Your task to perform on an android device: Go to notification settings Image 0: 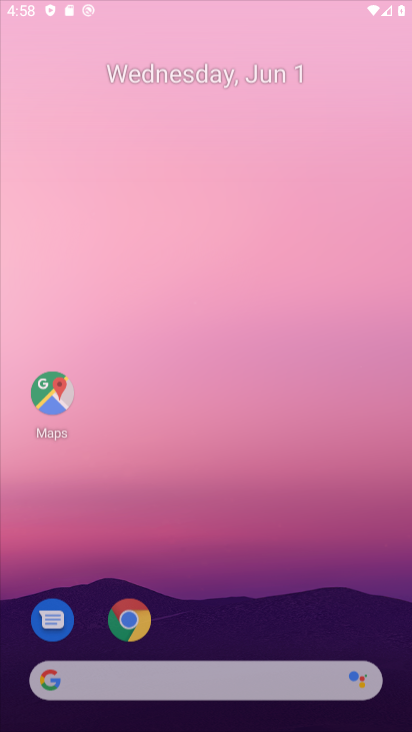
Step 0: drag from (212, 615) to (235, 217)
Your task to perform on an android device: Go to notification settings Image 1: 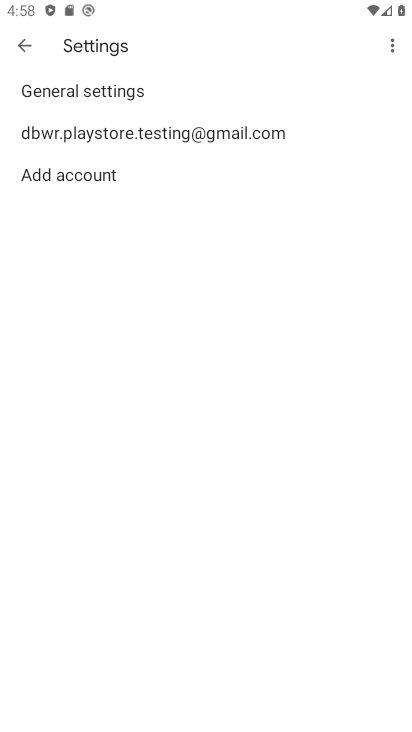
Step 1: press home button
Your task to perform on an android device: Go to notification settings Image 2: 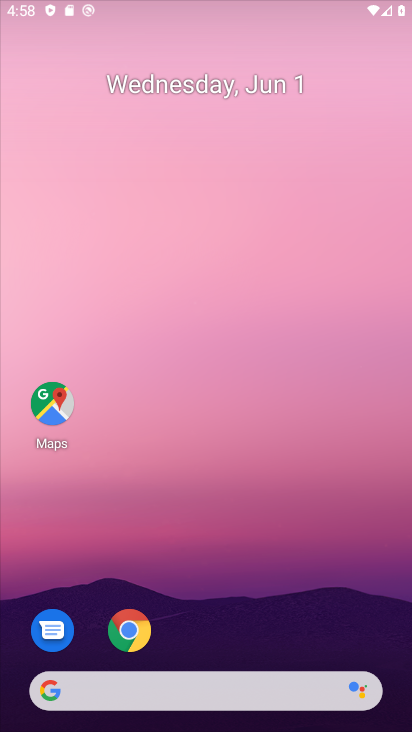
Step 2: drag from (185, 661) to (259, 320)
Your task to perform on an android device: Go to notification settings Image 3: 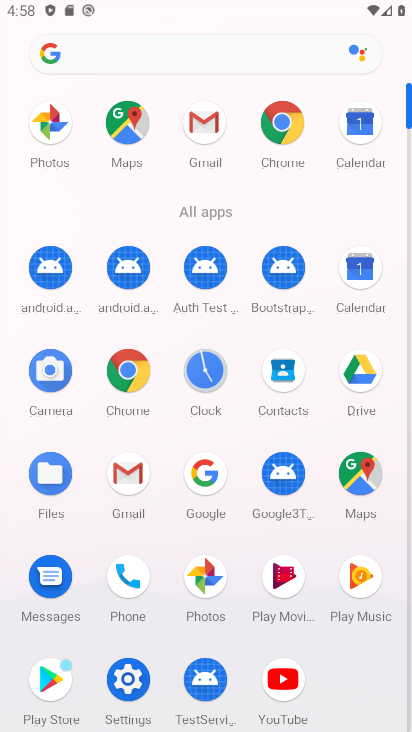
Step 3: drag from (201, 693) to (275, 366)
Your task to perform on an android device: Go to notification settings Image 4: 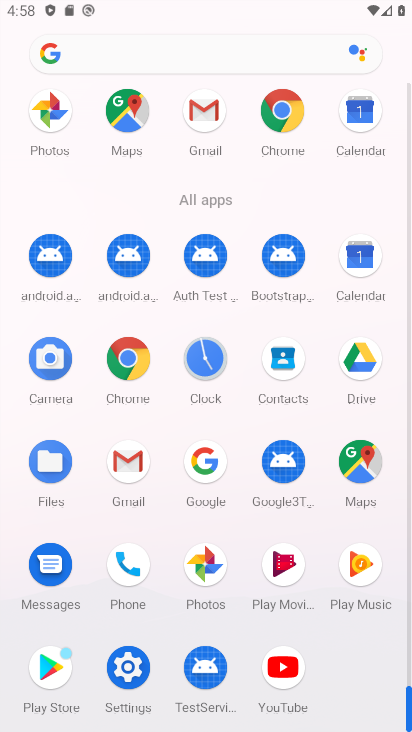
Step 4: click (140, 670)
Your task to perform on an android device: Go to notification settings Image 5: 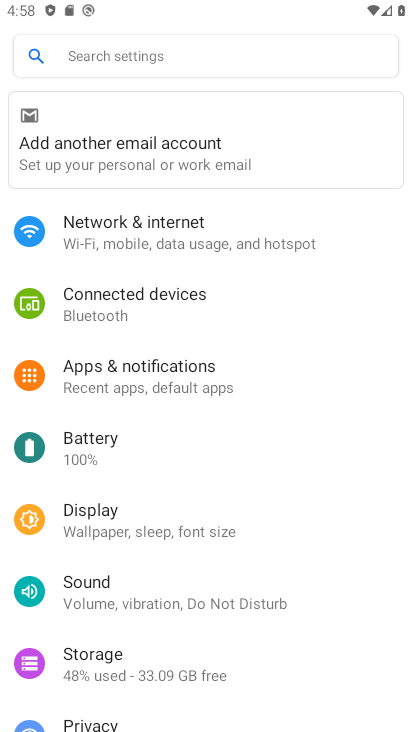
Step 5: drag from (207, 652) to (275, 553)
Your task to perform on an android device: Go to notification settings Image 6: 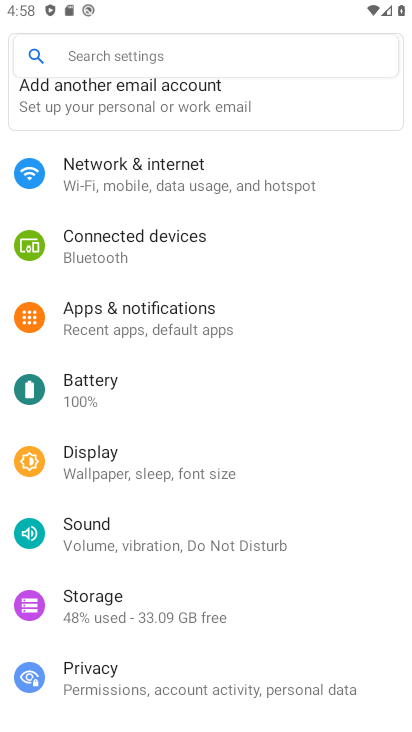
Step 6: click (237, 333)
Your task to perform on an android device: Go to notification settings Image 7: 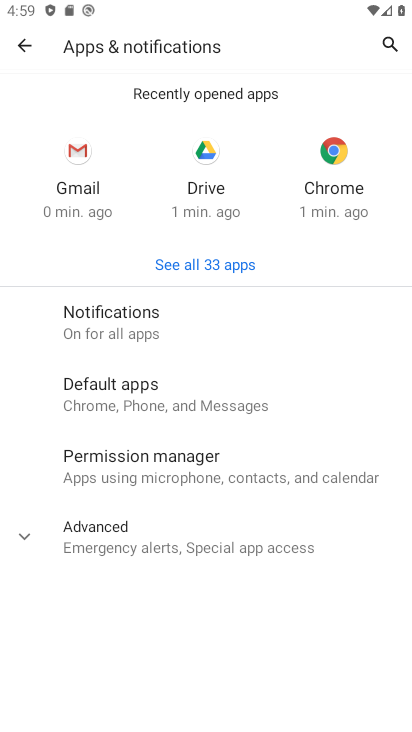
Step 7: click (217, 326)
Your task to perform on an android device: Go to notification settings Image 8: 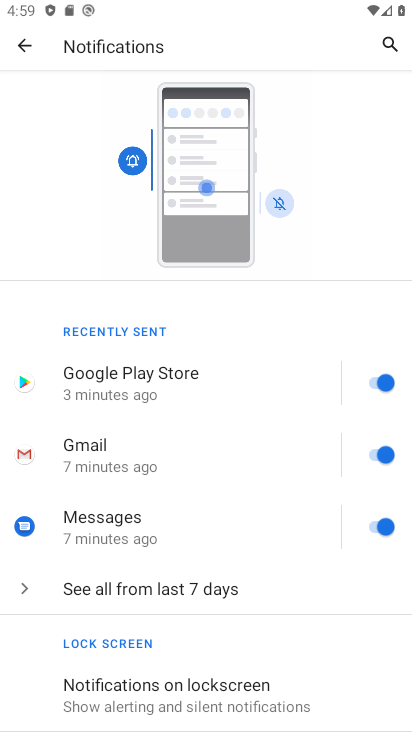
Step 8: task complete